Your task to perform on an android device: open the mobile data screen to see how much data has been used Image 0: 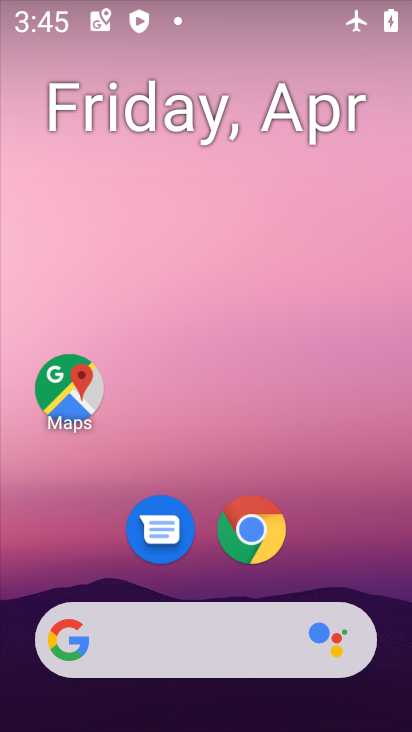
Step 0: drag from (351, 580) to (365, 121)
Your task to perform on an android device: open the mobile data screen to see how much data has been used Image 1: 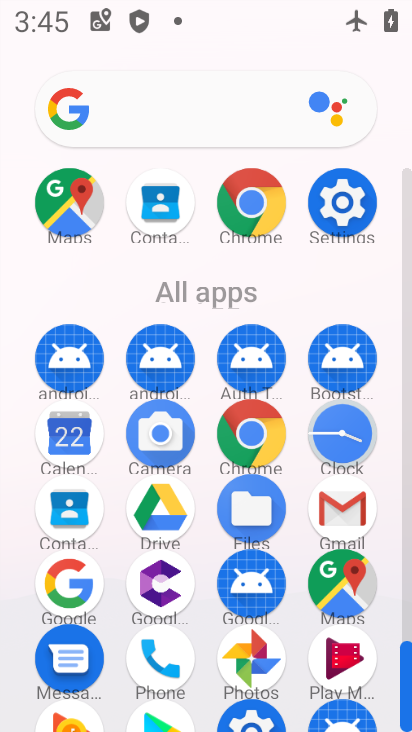
Step 1: click (354, 214)
Your task to perform on an android device: open the mobile data screen to see how much data has been used Image 2: 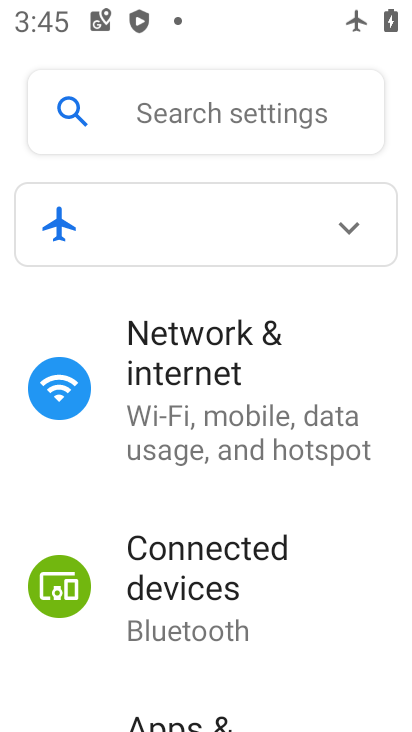
Step 2: click (213, 457)
Your task to perform on an android device: open the mobile data screen to see how much data has been used Image 3: 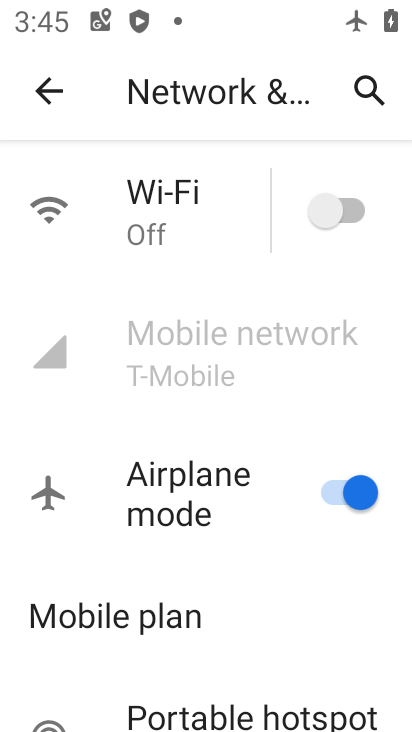
Step 3: click (222, 372)
Your task to perform on an android device: open the mobile data screen to see how much data has been used Image 4: 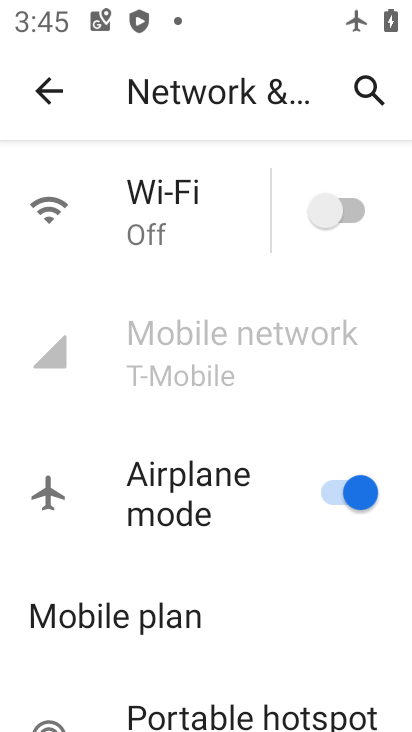
Step 4: task complete